Your task to perform on an android device: change the clock display to analog Image 0: 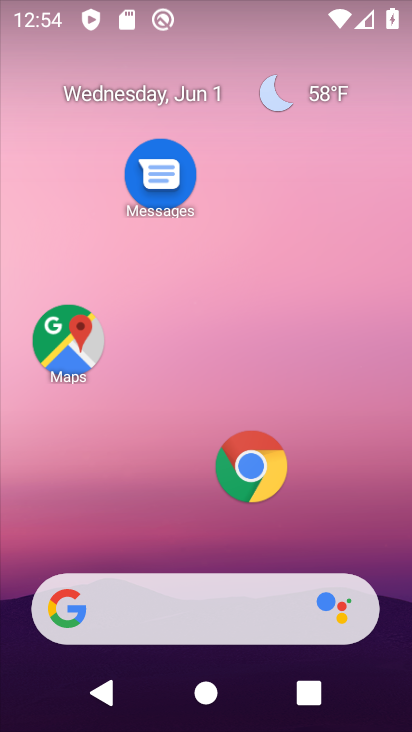
Step 0: drag from (154, 729) to (144, 59)
Your task to perform on an android device: change the clock display to analog Image 1: 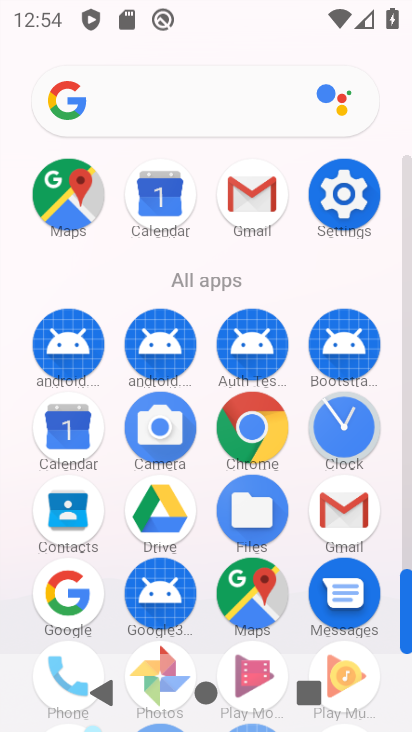
Step 1: click (318, 427)
Your task to perform on an android device: change the clock display to analog Image 2: 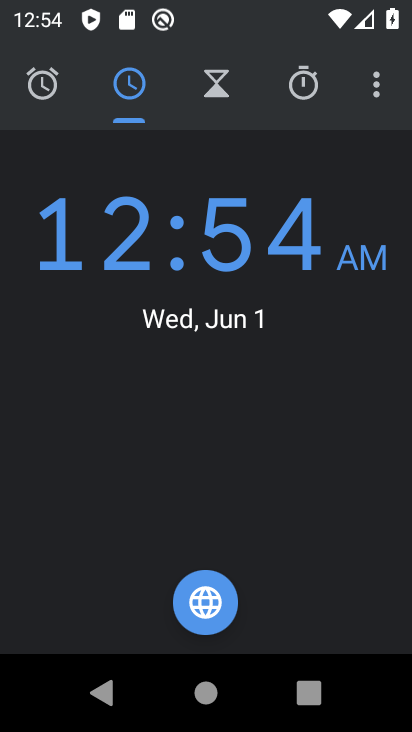
Step 2: click (388, 99)
Your task to perform on an android device: change the clock display to analog Image 3: 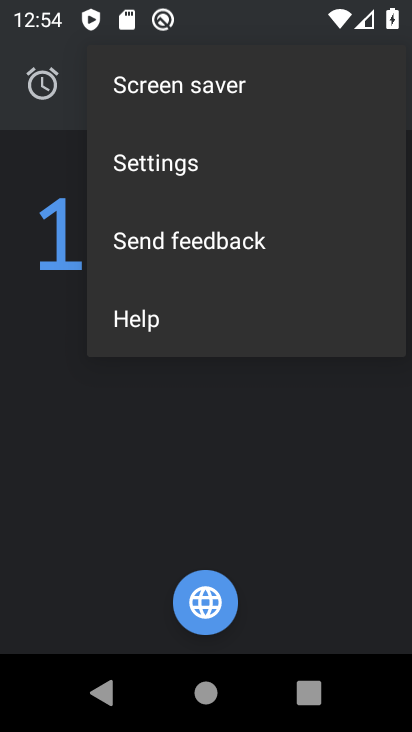
Step 3: click (197, 180)
Your task to perform on an android device: change the clock display to analog Image 4: 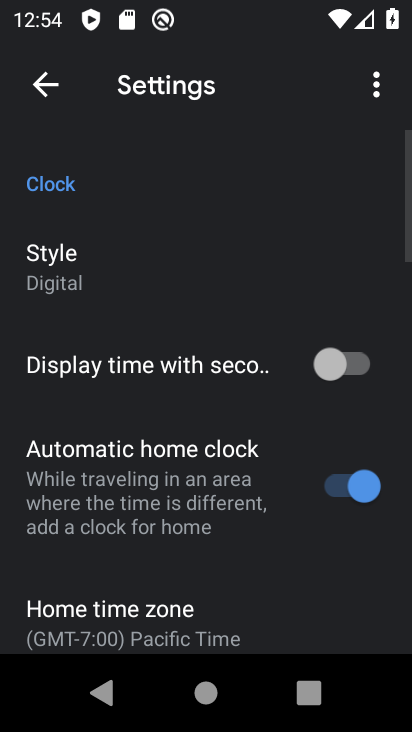
Step 4: click (59, 262)
Your task to perform on an android device: change the clock display to analog Image 5: 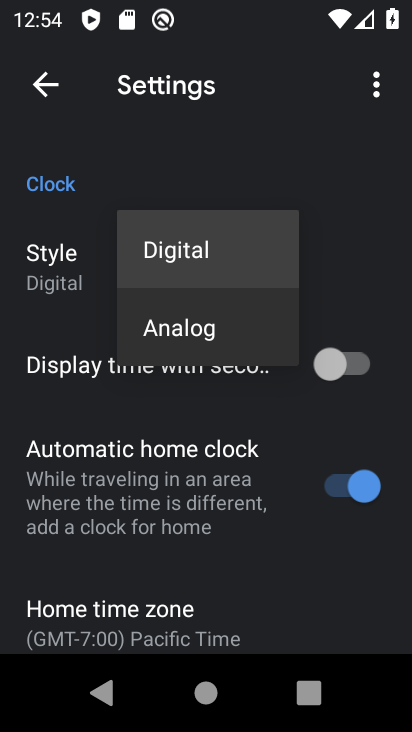
Step 5: click (175, 349)
Your task to perform on an android device: change the clock display to analog Image 6: 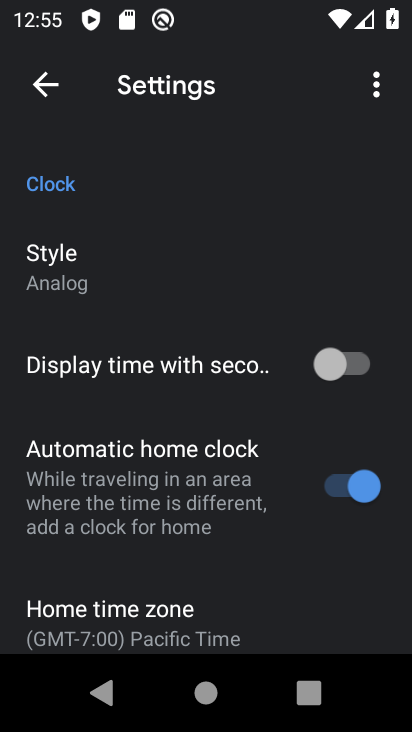
Step 6: task complete